Your task to perform on an android device: Go to display settings Image 0: 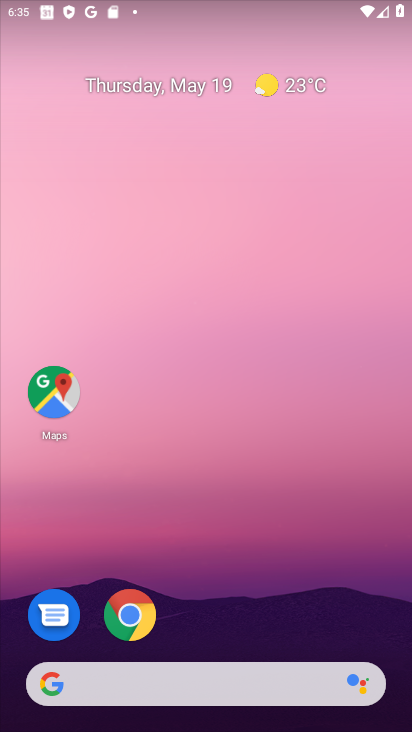
Step 0: drag from (291, 640) to (260, 45)
Your task to perform on an android device: Go to display settings Image 1: 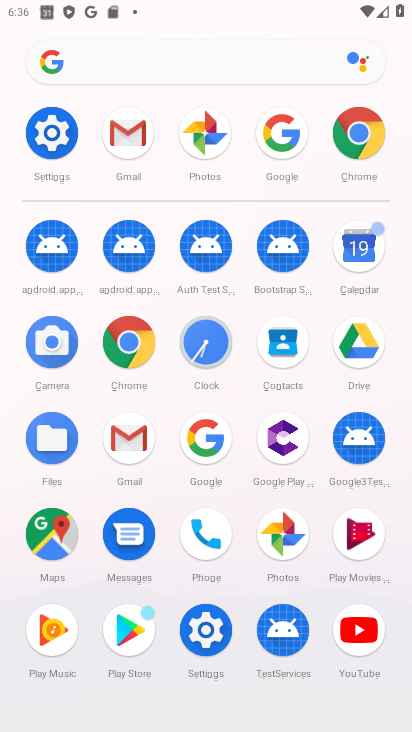
Step 1: click (58, 131)
Your task to perform on an android device: Go to display settings Image 2: 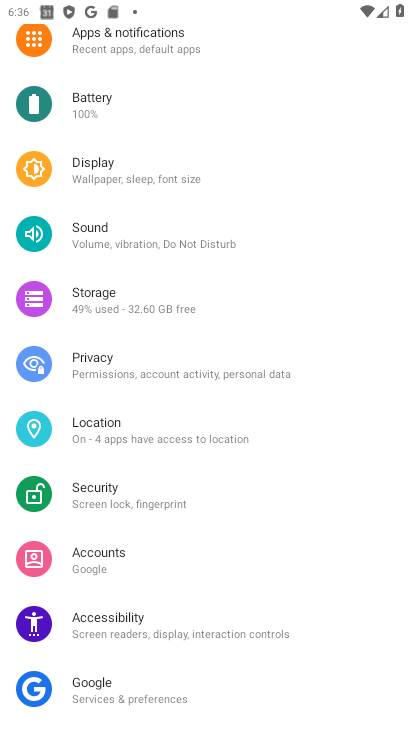
Step 2: click (115, 161)
Your task to perform on an android device: Go to display settings Image 3: 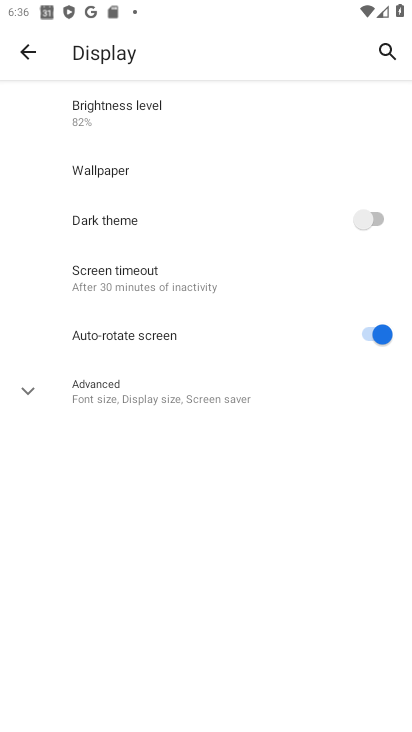
Step 3: task complete